Your task to perform on an android device: Go to CNN.com Image 0: 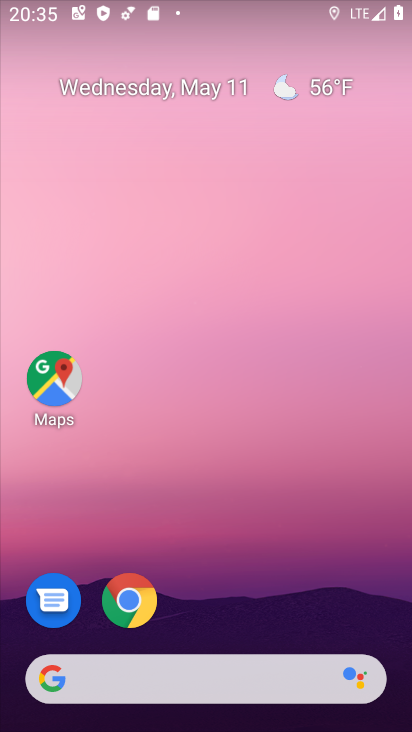
Step 0: click (129, 598)
Your task to perform on an android device: Go to CNN.com Image 1: 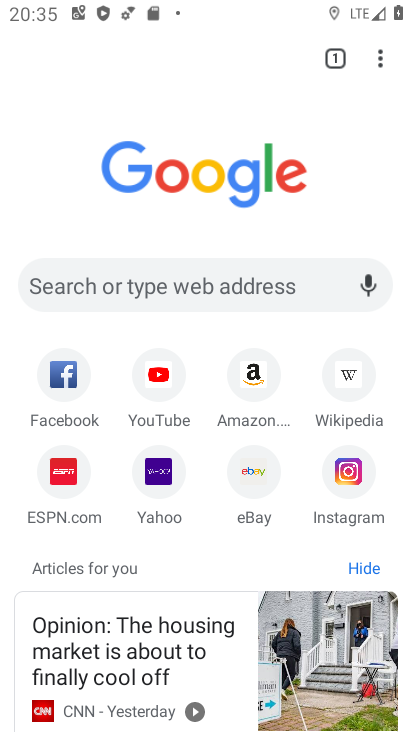
Step 1: click (202, 274)
Your task to perform on an android device: Go to CNN.com Image 2: 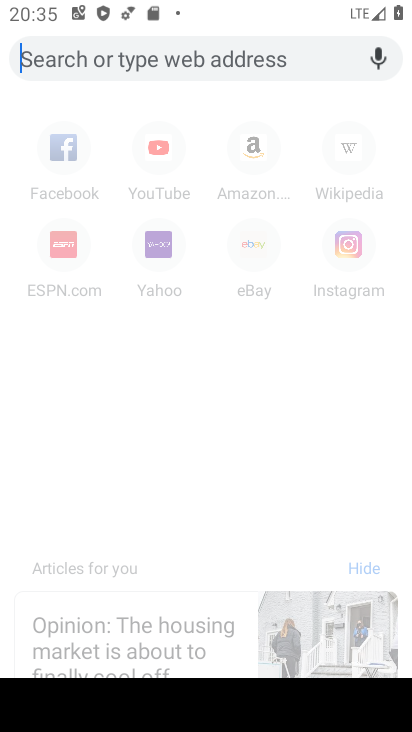
Step 2: type "CNN.com"
Your task to perform on an android device: Go to CNN.com Image 3: 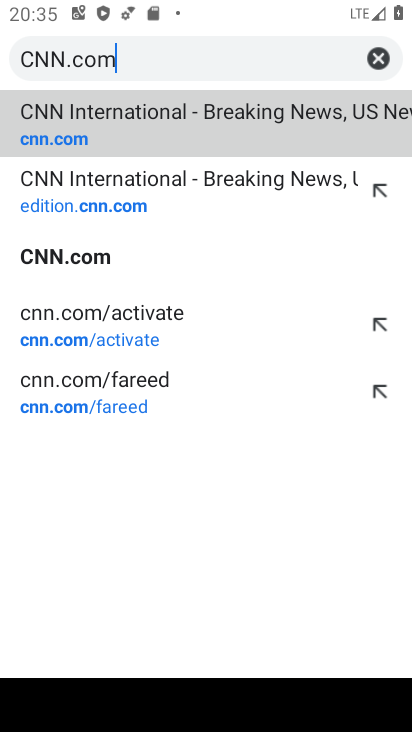
Step 3: click (63, 256)
Your task to perform on an android device: Go to CNN.com Image 4: 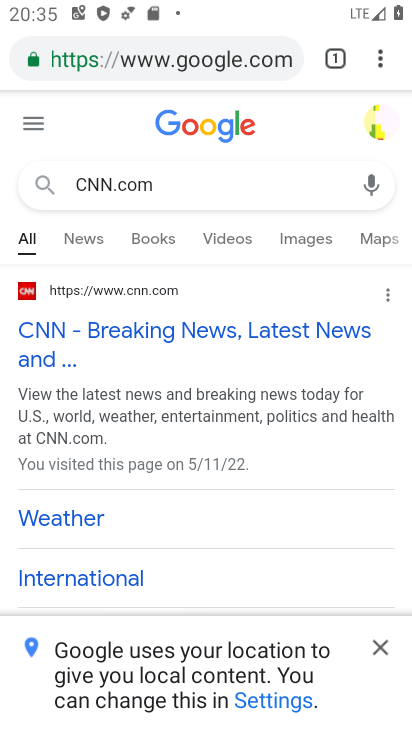
Step 4: click (104, 328)
Your task to perform on an android device: Go to CNN.com Image 5: 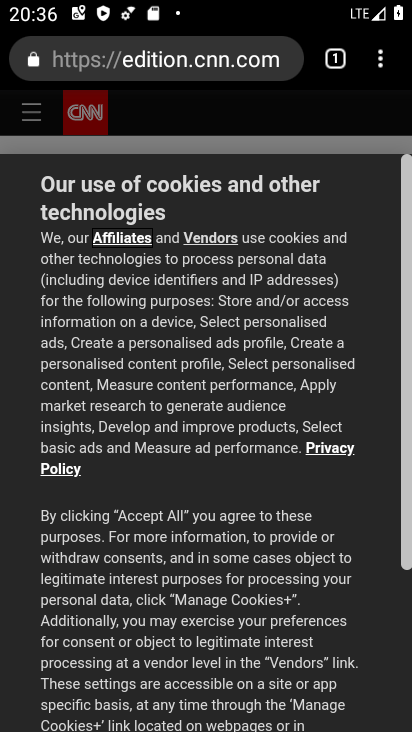
Step 5: task complete